Your task to perform on an android device: Is it going to rain tomorrow? Image 0: 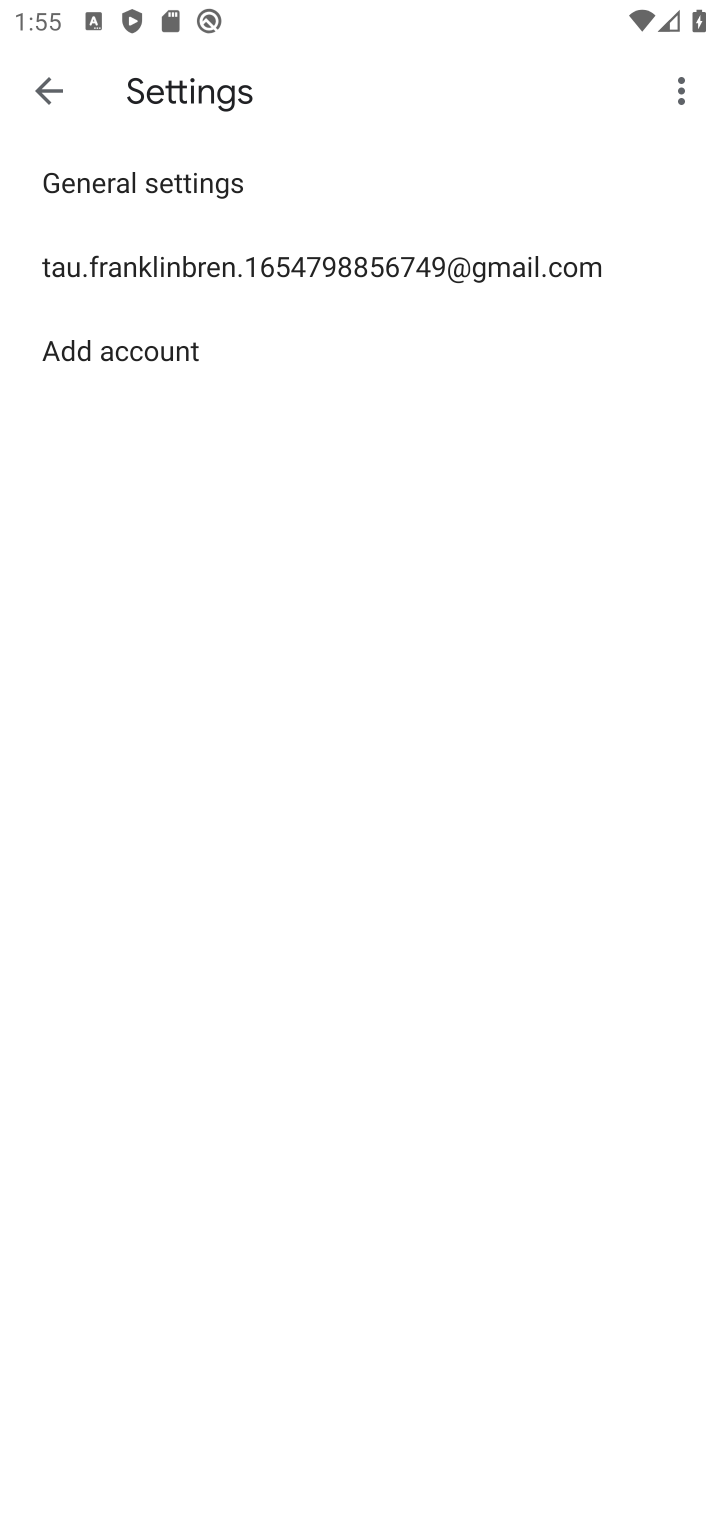
Step 0: press home button
Your task to perform on an android device: Is it going to rain tomorrow? Image 1: 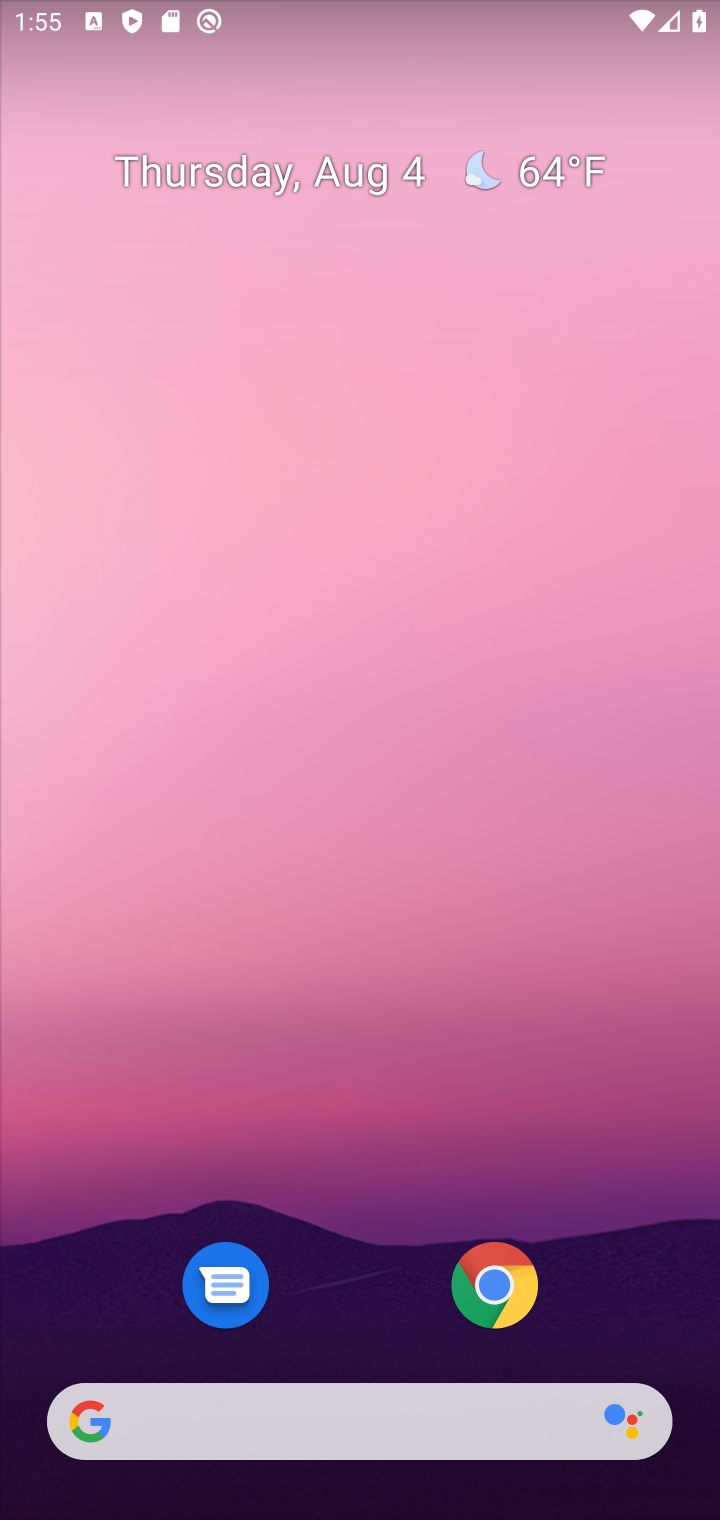
Step 1: click (551, 164)
Your task to perform on an android device: Is it going to rain tomorrow? Image 2: 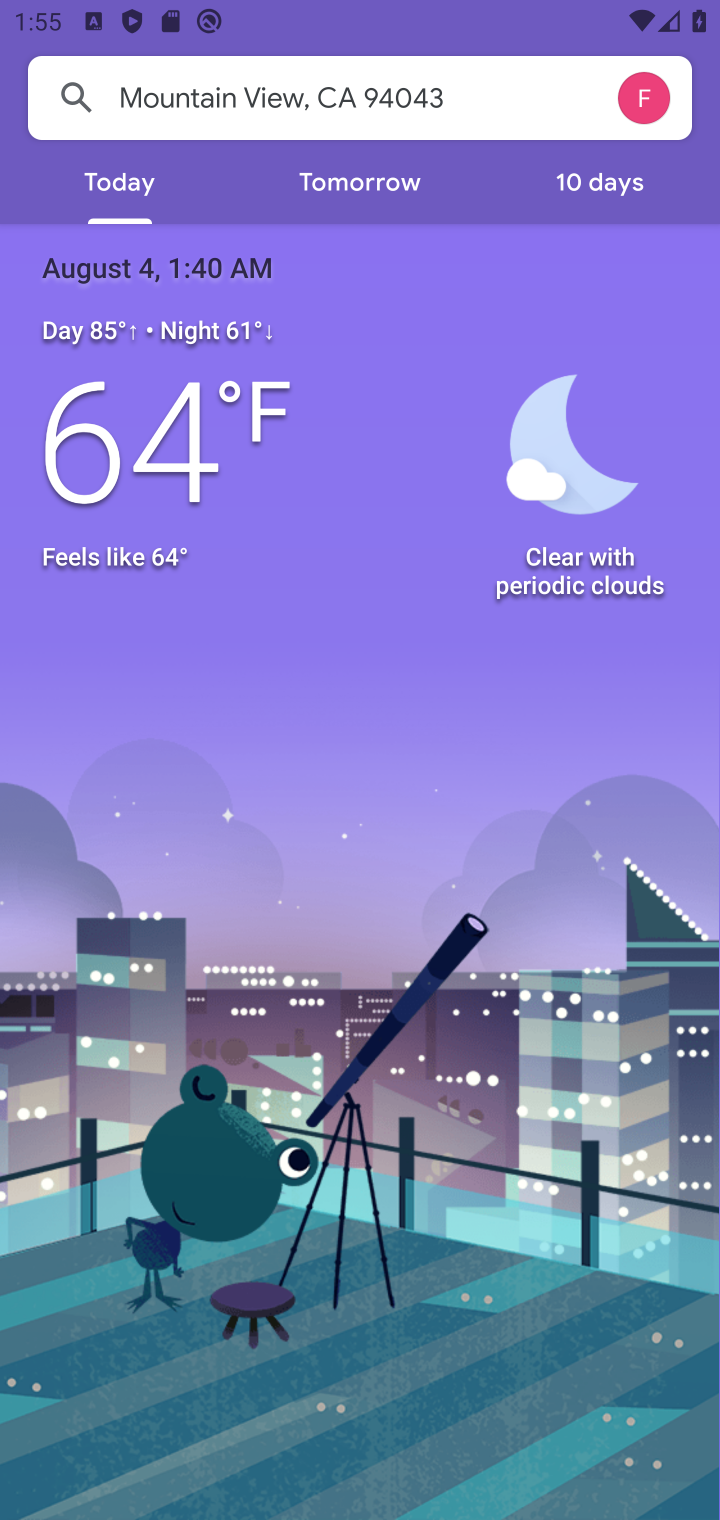
Step 2: click (358, 182)
Your task to perform on an android device: Is it going to rain tomorrow? Image 3: 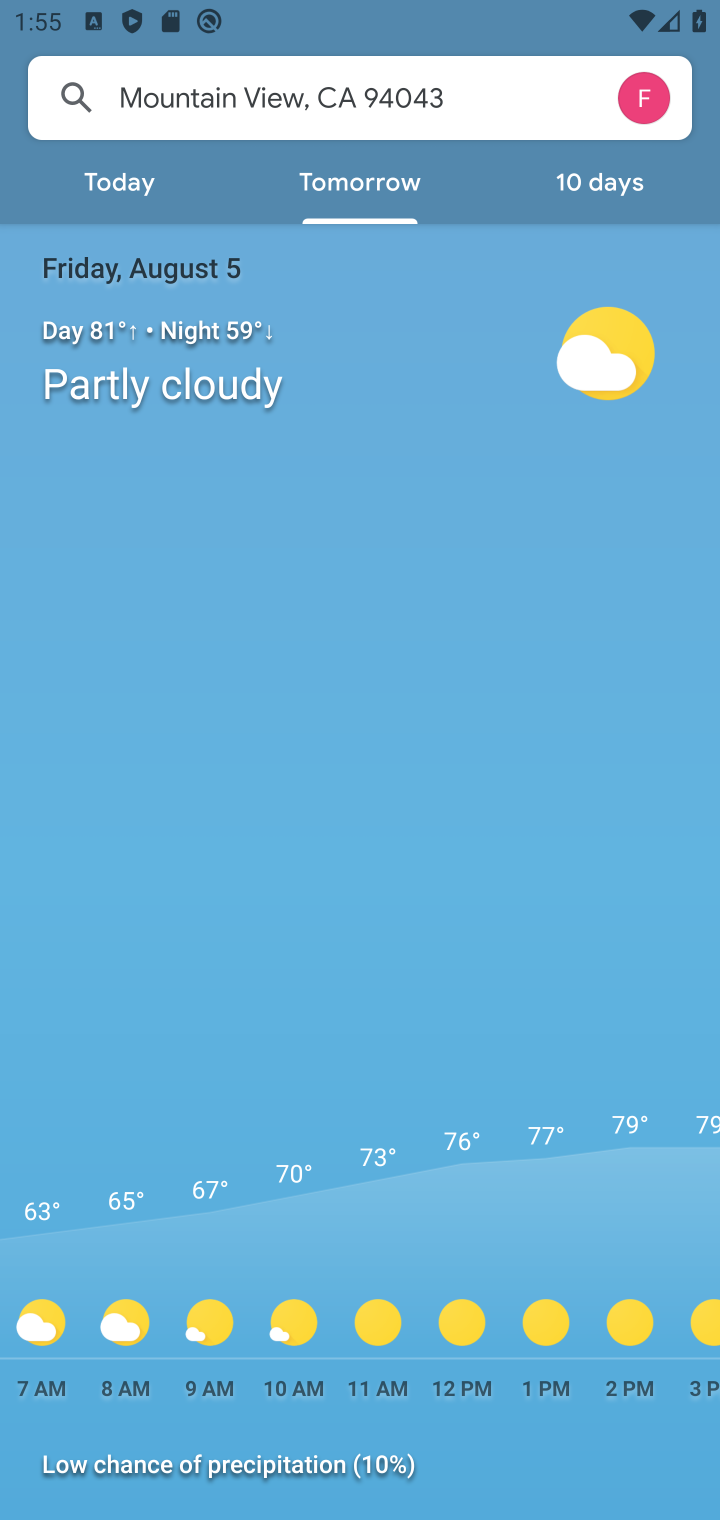
Step 3: drag from (417, 1124) to (408, 656)
Your task to perform on an android device: Is it going to rain tomorrow? Image 4: 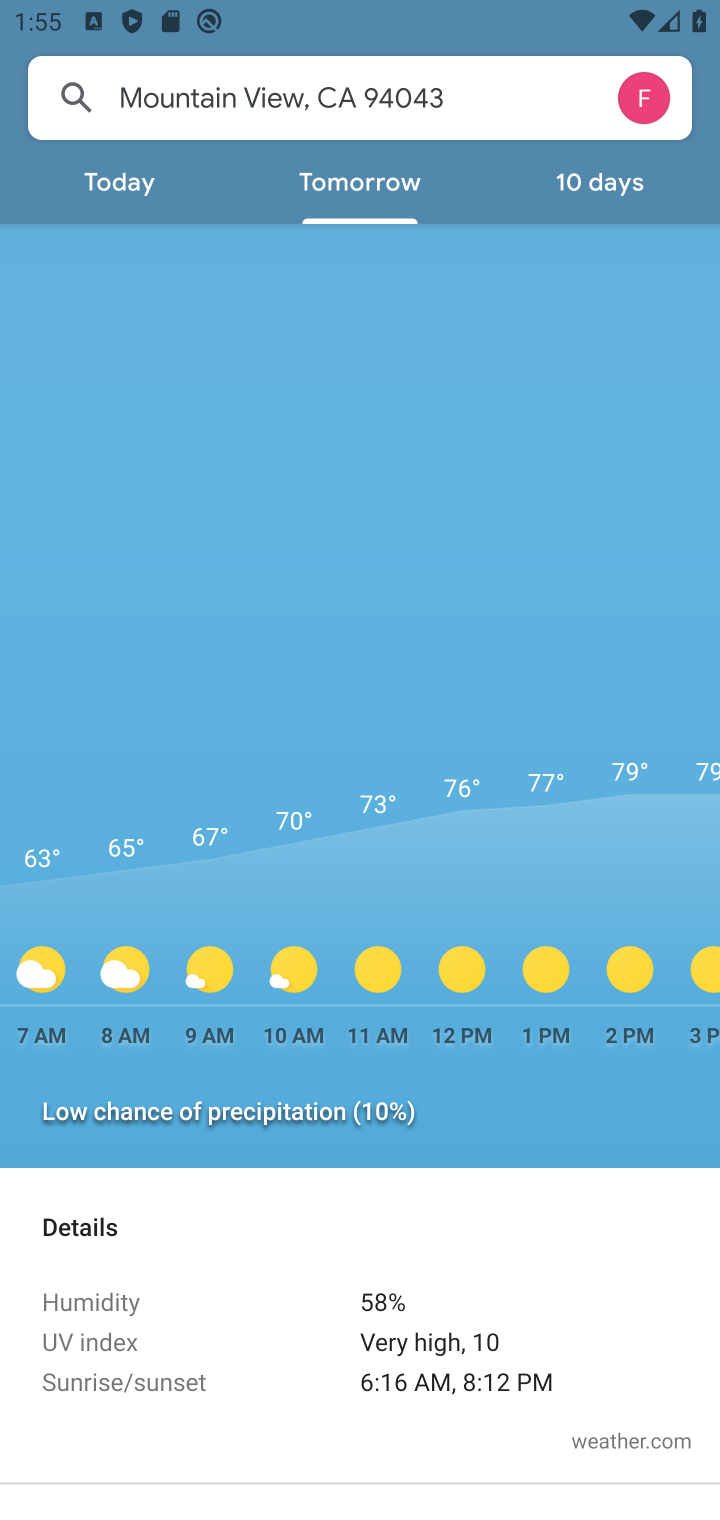
Step 4: drag from (635, 968) to (58, 988)
Your task to perform on an android device: Is it going to rain tomorrow? Image 5: 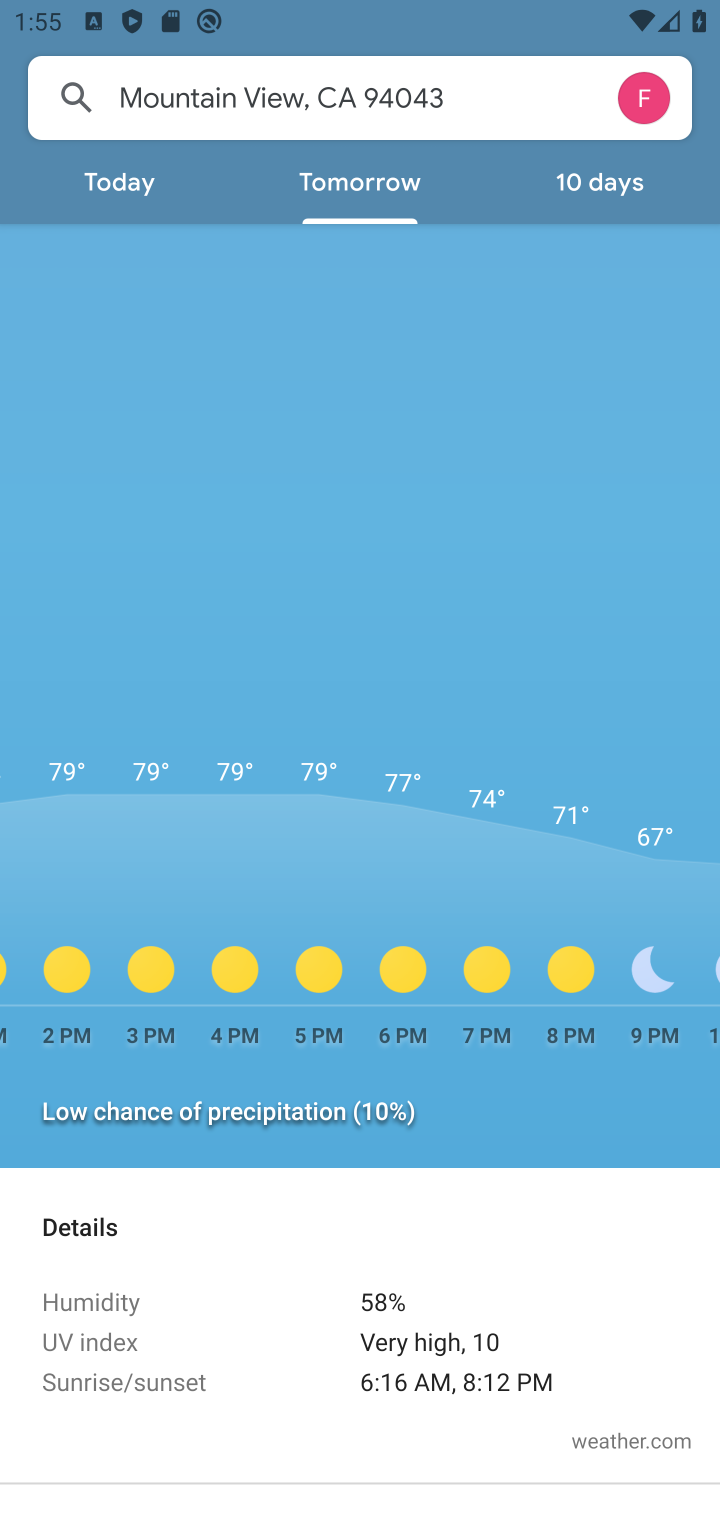
Step 5: click (642, 979)
Your task to perform on an android device: Is it going to rain tomorrow? Image 6: 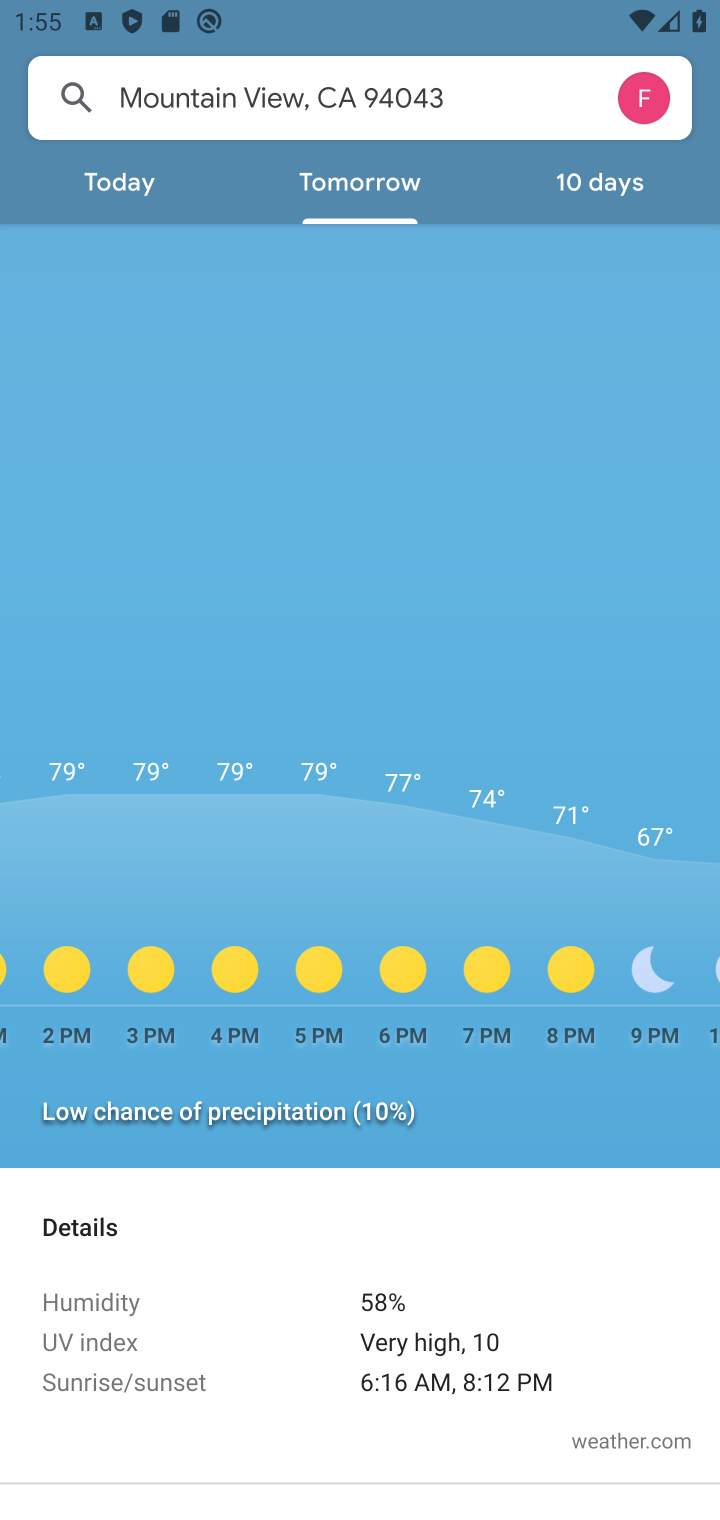
Step 6: task complete